Your task to perform on an android device: Go to wifi settings Image 0: 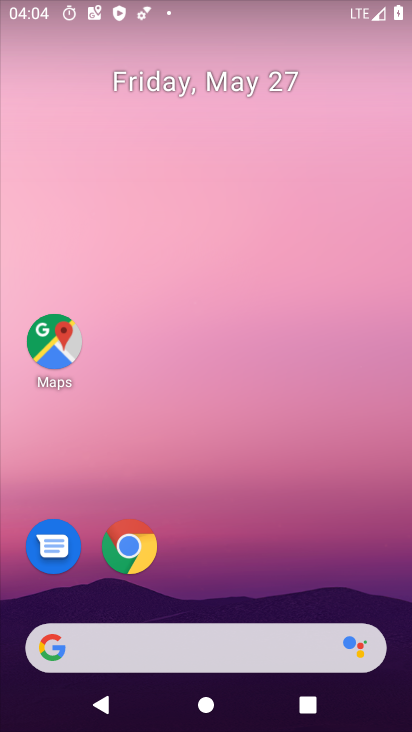
Step 0: drag from (401, 689) to (323, 180)
Your task to perform on an android device: Go to wifi settings Image 1: 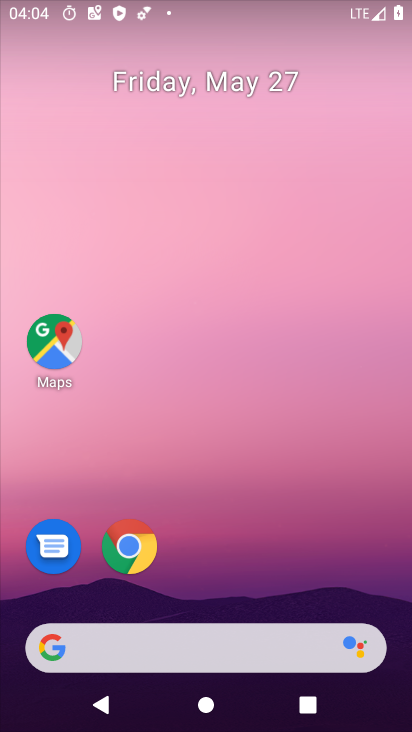
Step 1: drag from (397, 678) to (329, 118)
Your task to perform on an android device: Go to wifi settings Image 2: 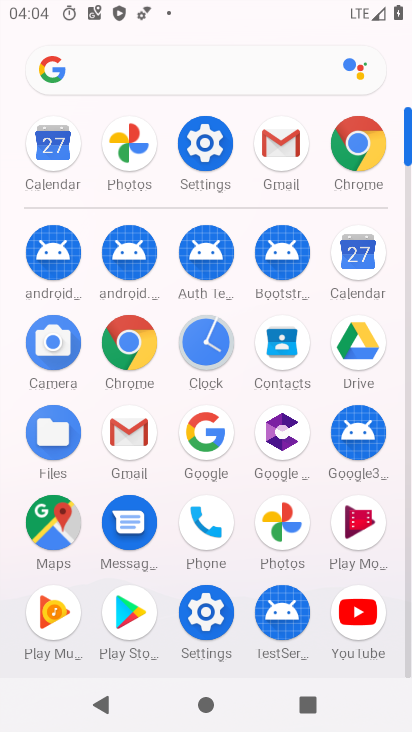
Step 2: click (196, 143)
Your task to perform on an android device: Go to wifi settings Image 3: 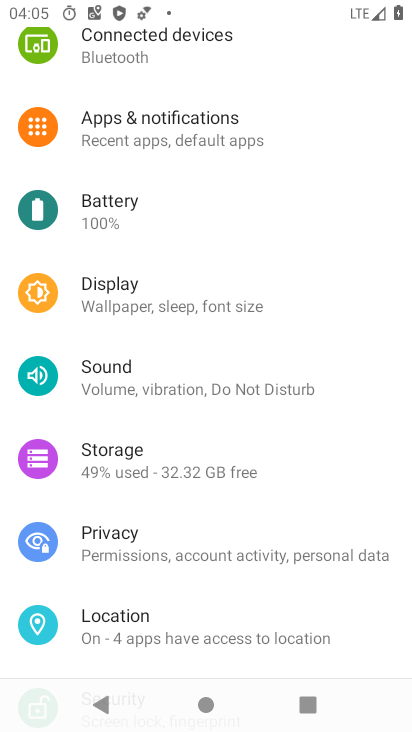
Step 3: drag from (343, 140) to (350, 459)
Your task to perform on an android device: Go to wifi settings Image 4: 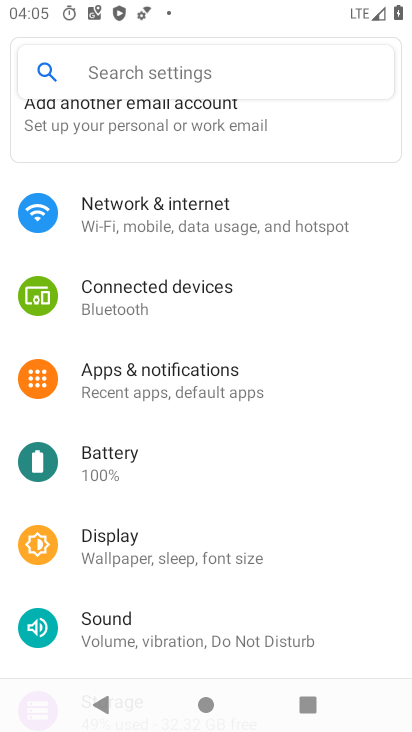
Step 4: click (181, 209)
Your task to perform on an android device: Go to wifi settings Image 5: 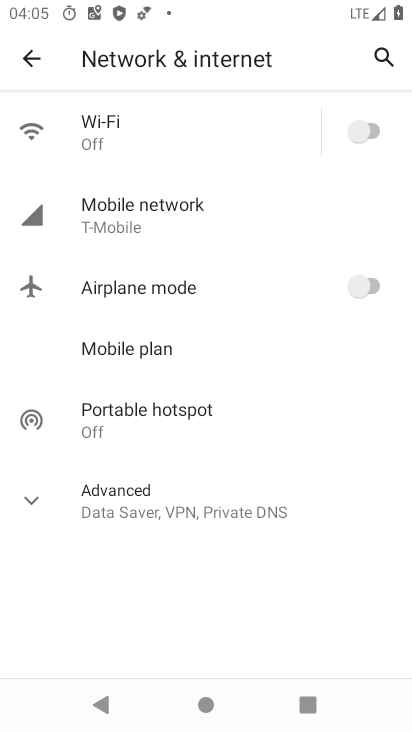
Step 5: click (203, 140)
Your task to perform on an android device: Go to wifi settings Image 6: 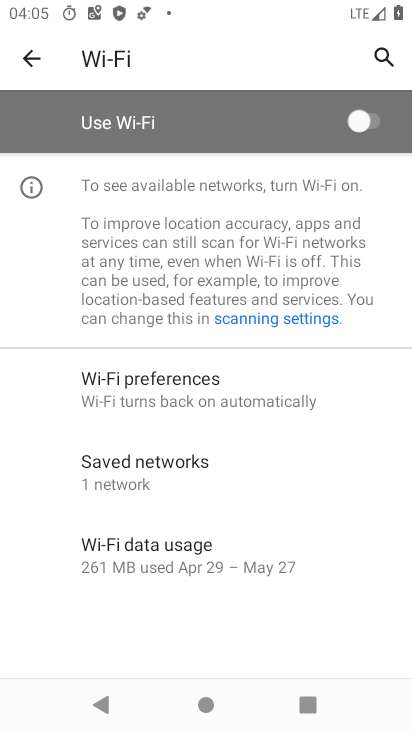
Step 6: task complete